Your task to perform on an android device: open a new tab in the chrome app Image 0: 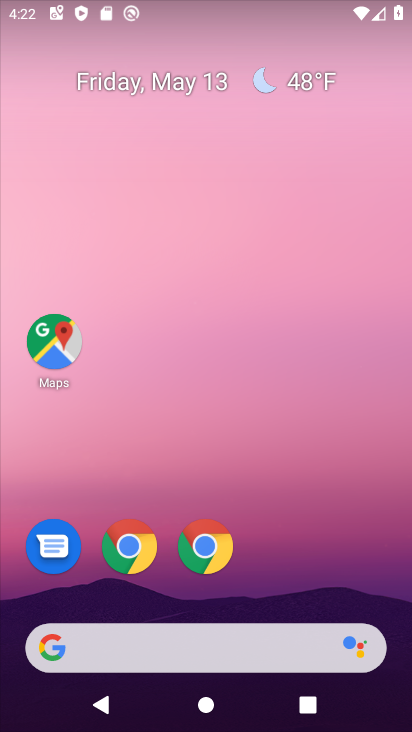
Step 0: drag from (323, 551) to (206, 67)
Your task to perform on an android device: open a new tab in the chrome app Image 1: 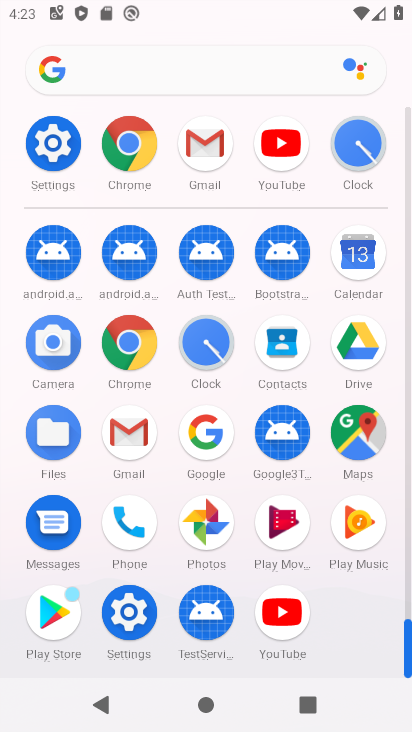
Step 1: click (125, 132)
Your task to perform on an android device: open a new tab in the chrome app Image 2: 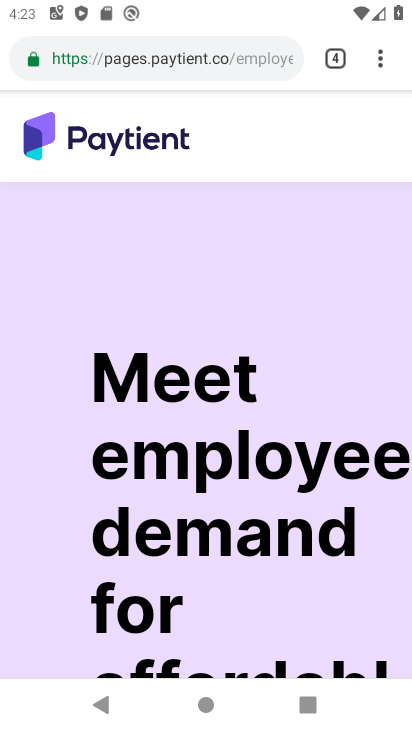
Step 2: drag from (380, 56) to (169, 103)
Your task to perform on an android device: open a new tab in the chrome app Image 3: 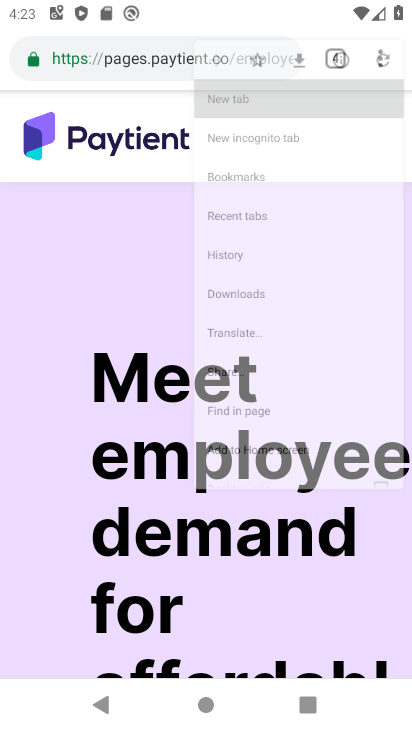
Step 3: click (170, 104)
Your task to perform on an android device: open a new tab in the chrome app Image 4: 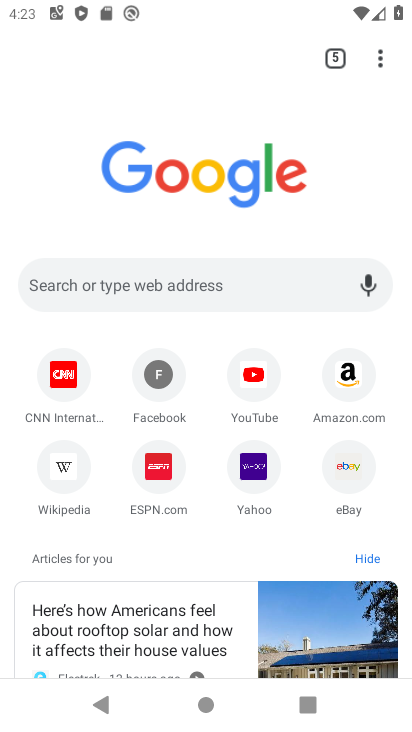
Step 4: task complete